Your task to perform on an android device: Open location settings Image 0: 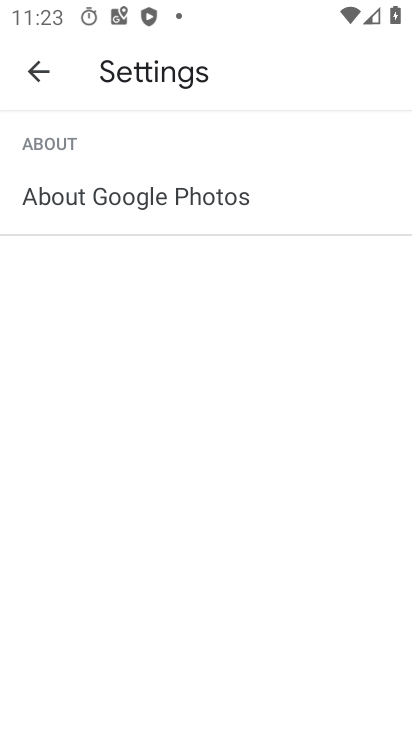
Step 0: press home button
Your task to perform on an android device: Open location settings Image 1: 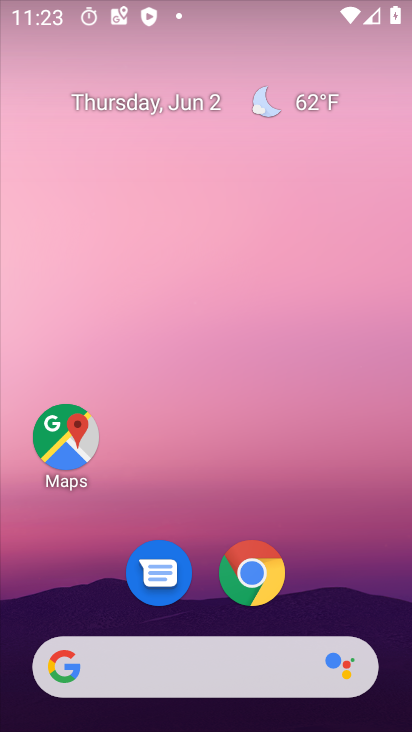
Step 1: drag from (270, 717) to (311, 159)
Your task to perform on an android device: Open location settings Image 2: 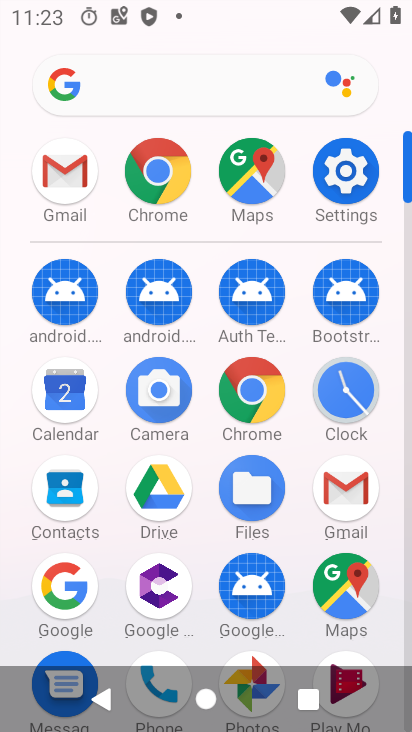
Step 2: click (348, 164)
Your task to perform on an android device: Open location settings Image 3: 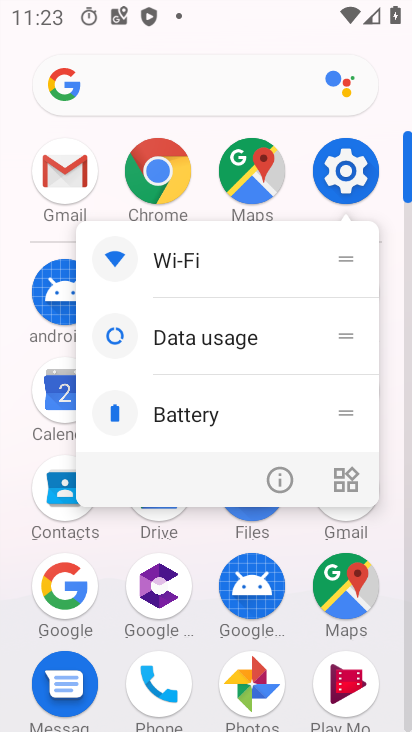
Step 3: click (348, 164)
Your task to perform on an android device: Open location settings Image 4: 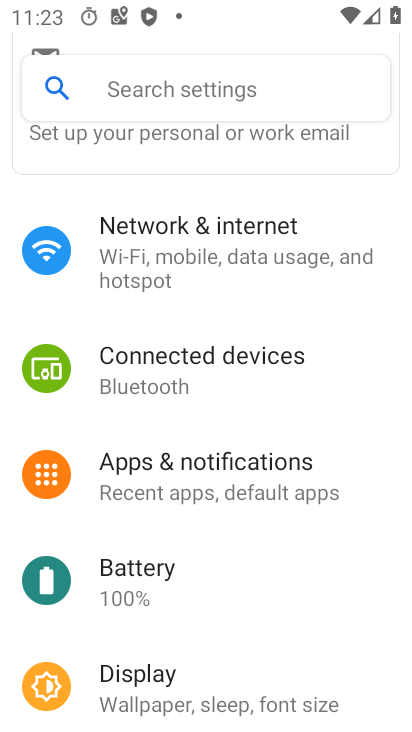
Step 4: drag from (141, 695) to (240, 168)
Your task to perform on an android device: Open location settings Image 5: 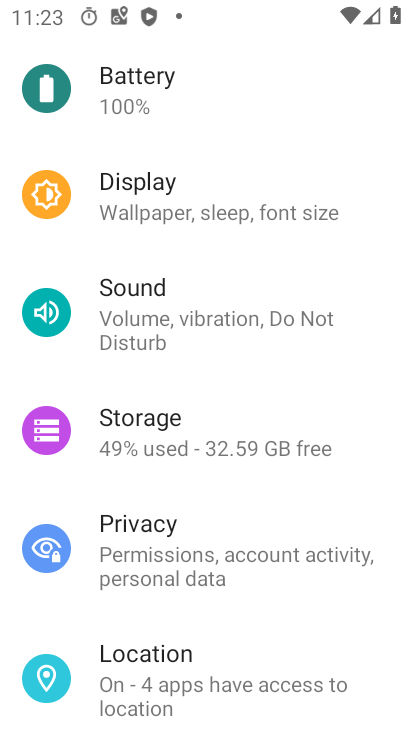
Step 5: click (182, 668)
Your task to perform on an android device: Open location settings Image 6: 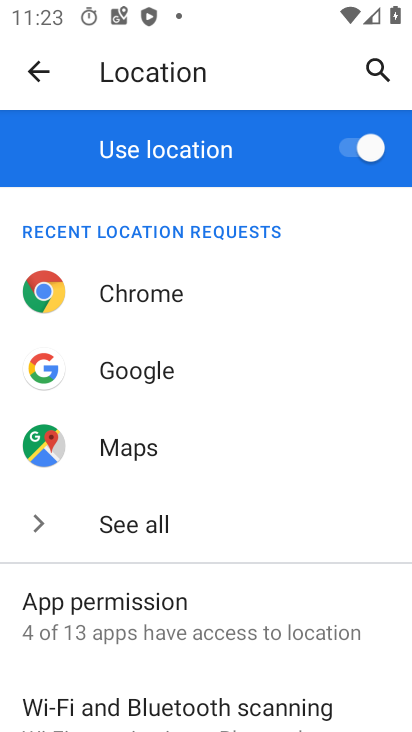
Step 6: task complete